Your task to perform on an android device: Clear all items from cart on ebay. Add "usb-c" to the cart on ebay, then select checkout. Image 0: 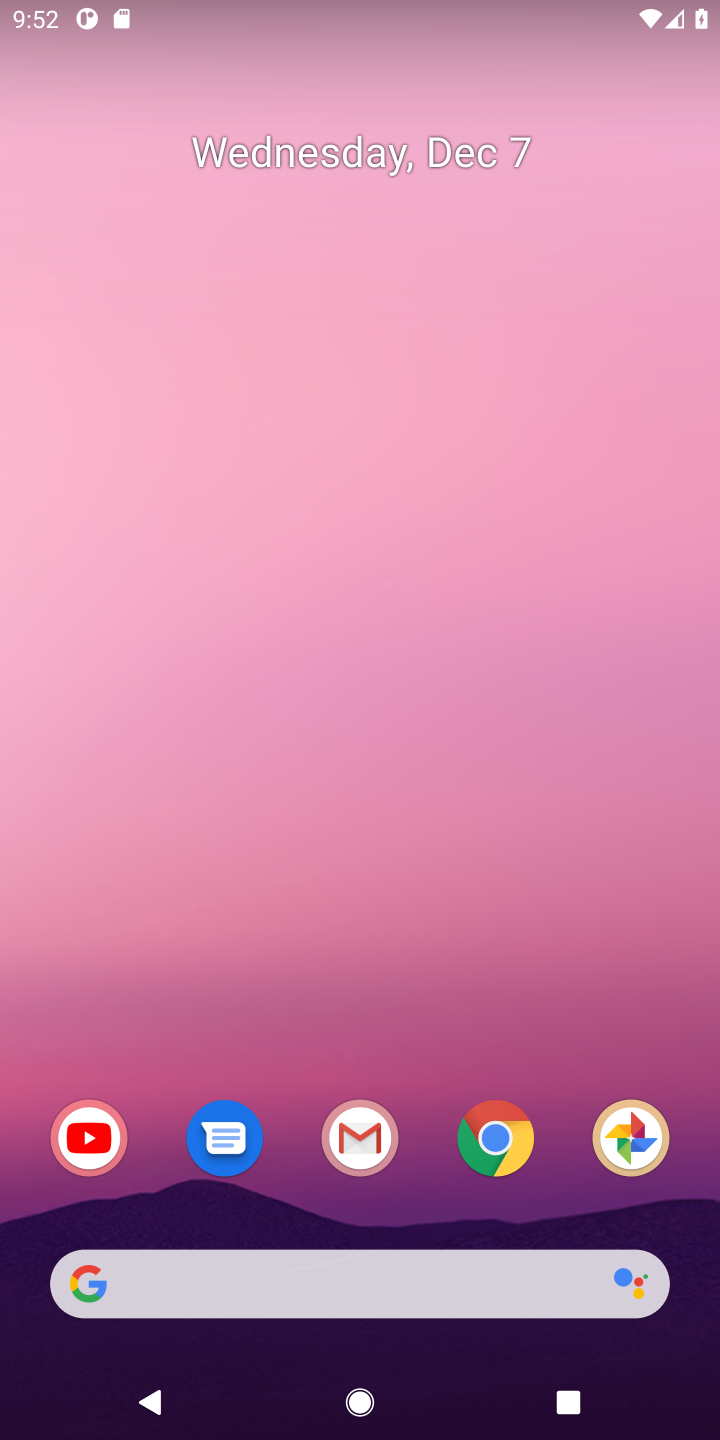
Step 0: press home button
Your task to perform on an android device: Clear all items from cart on ebay. Add "usb-c" to the cart on ebay, then select checkout. Image 1: 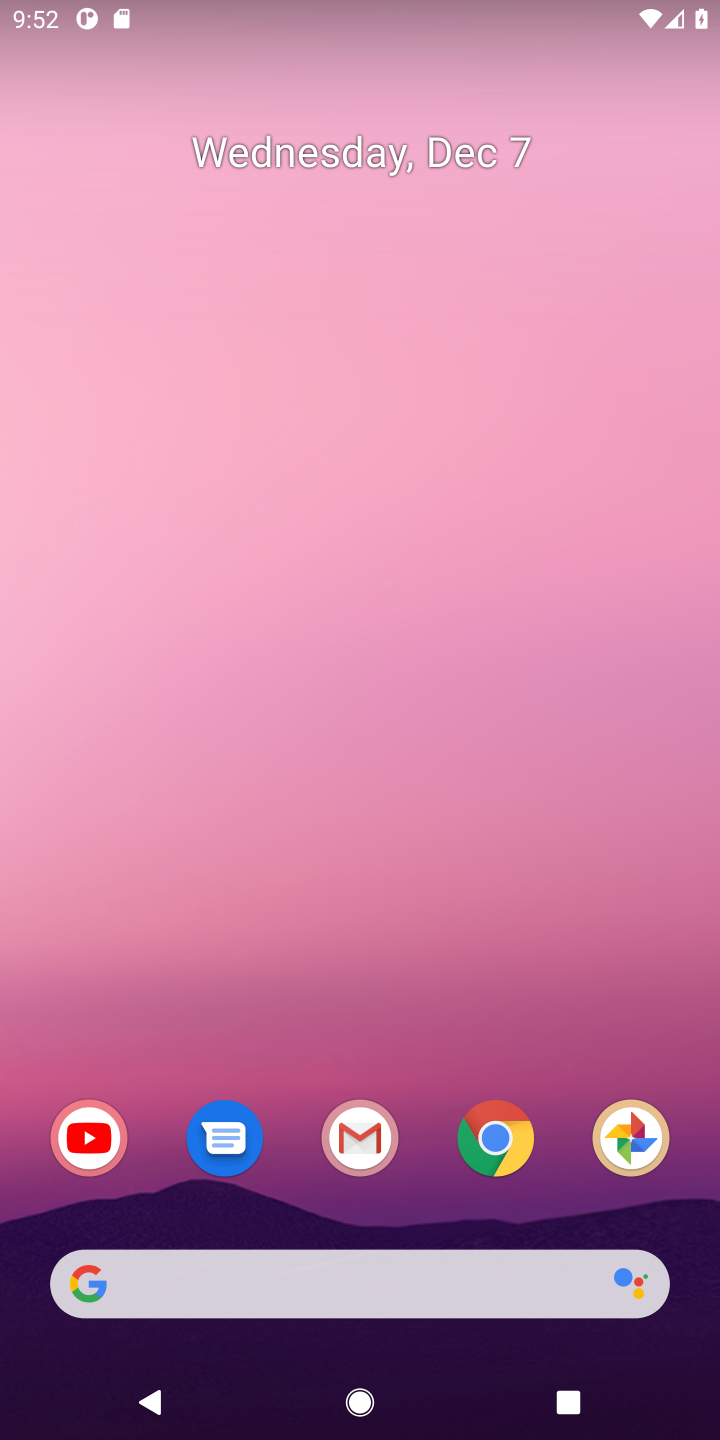
Step 1: click (155, 1286)
Your task to perform on an android device: Clear all items from cart on ebay. Add "usb-c" to the cart on ebay, then select checkout. Image 2: 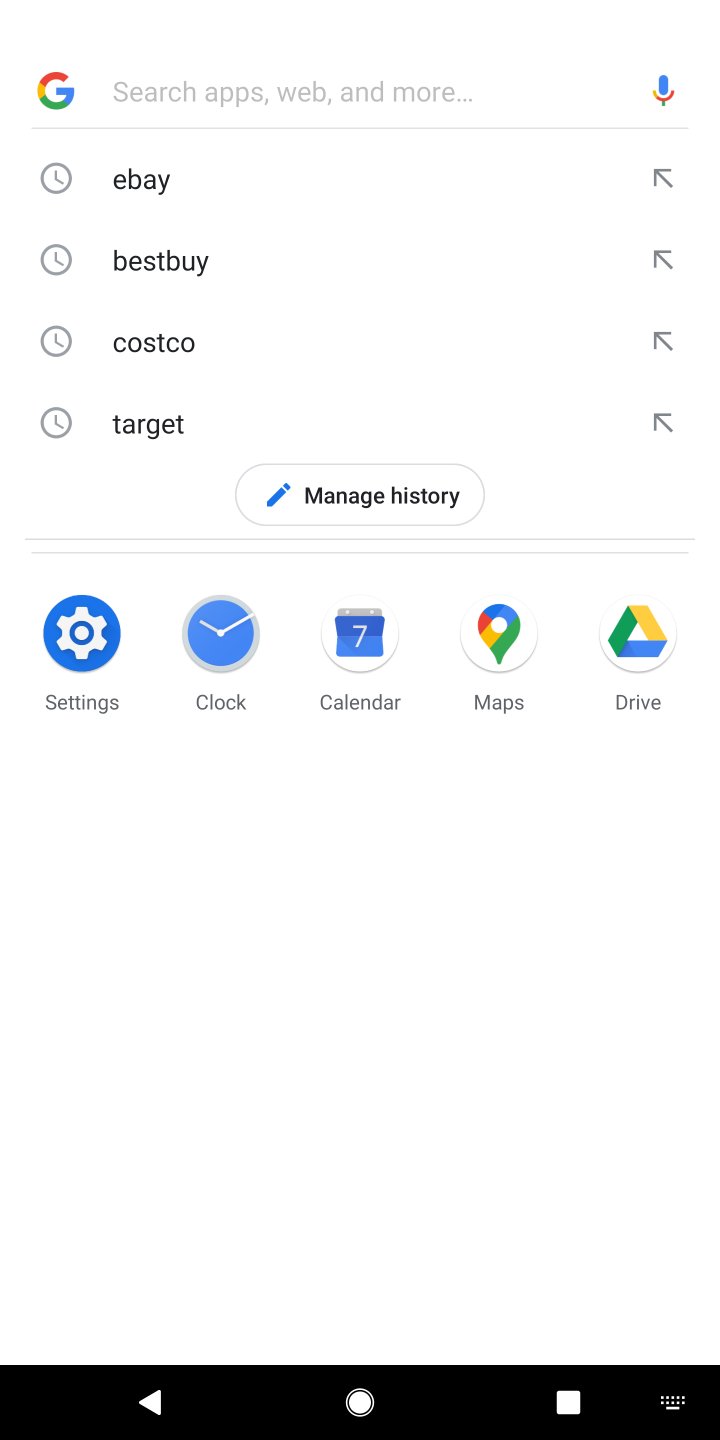
Step 2: press enter
Your task to perform on an android device: Clear all items from cart on ebay. Add "usb-c" to the cart on ebay, then select checkout. Image 3: 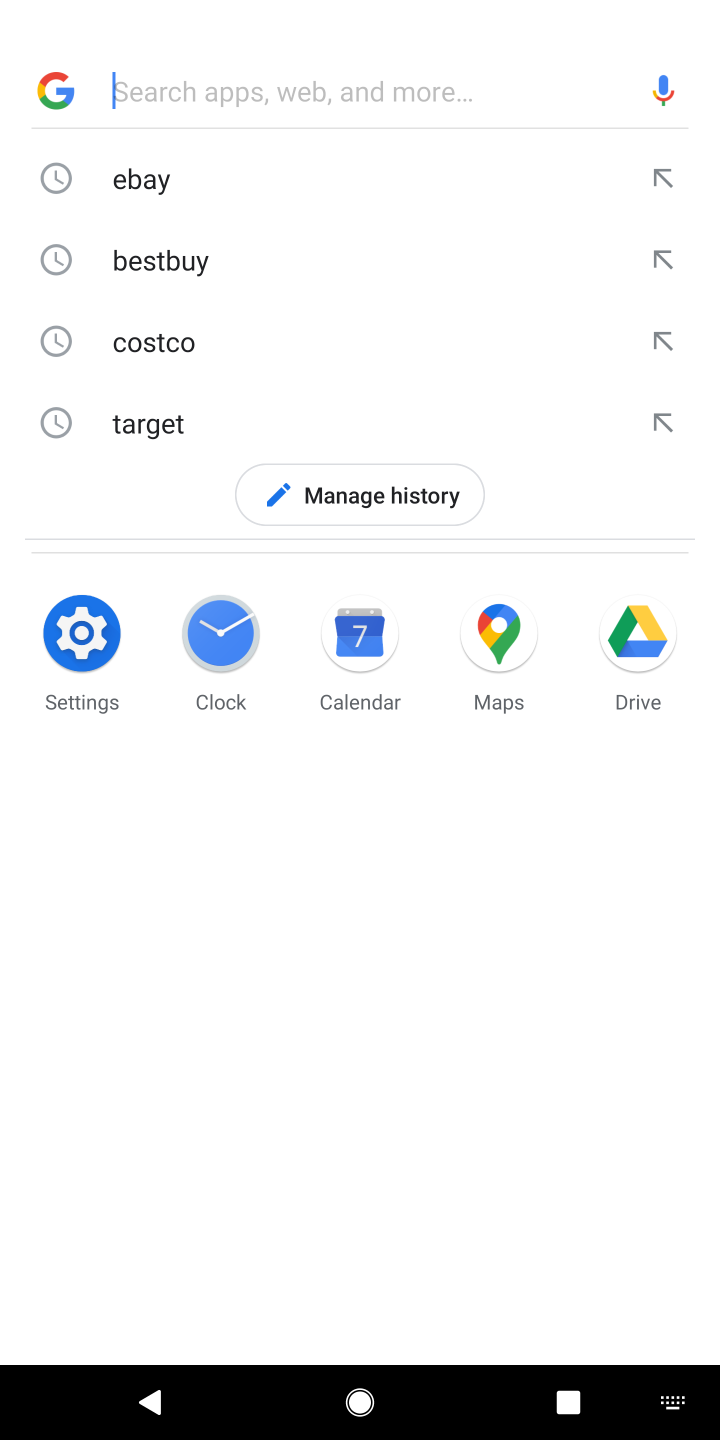
Step 3: type "ebay"
Your task to perform on an android device: Clear all items from cart on ebay. Add "usb-c" to the cart on ebay, then select checkout. Image 4: 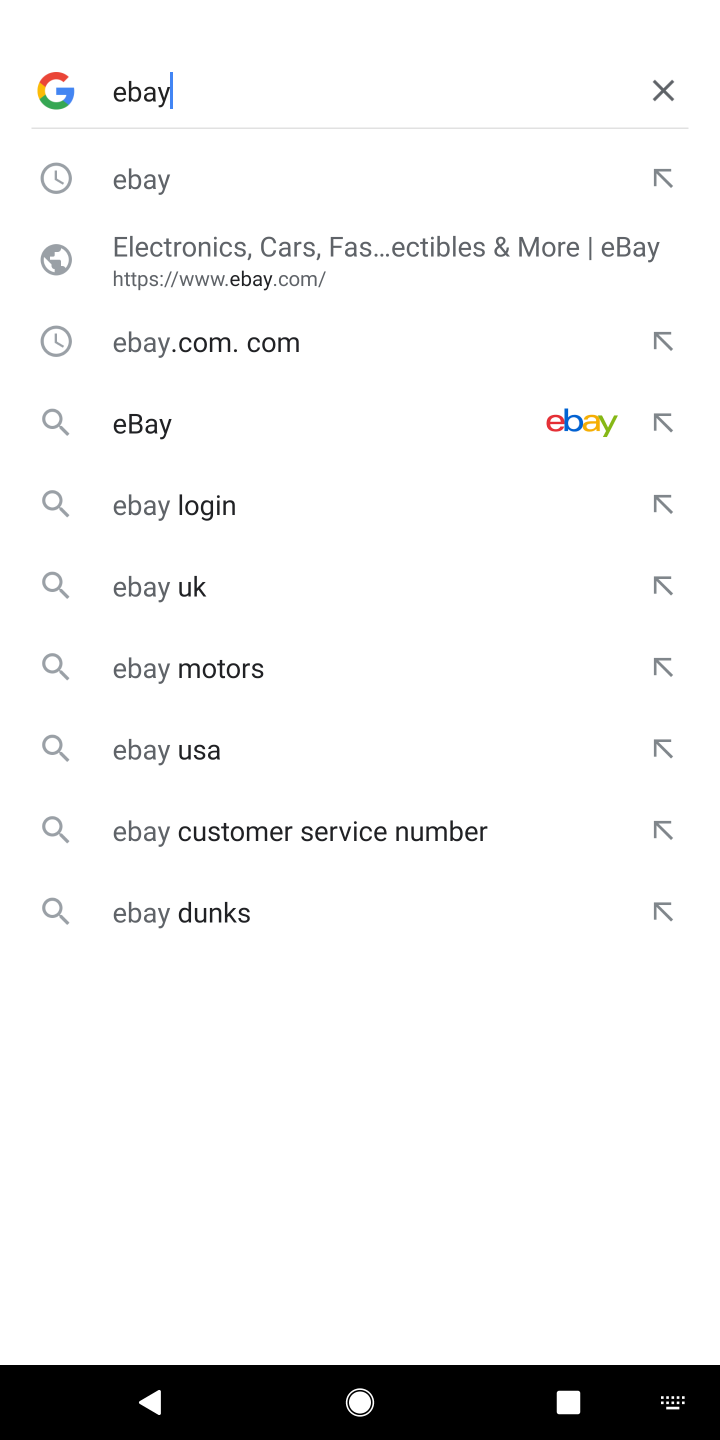
Step 4: press enter
Your task to perform on an android device: Clear all items from cart on ebay. Add "usb-c" to the cart on ebay, then select checkout. Image 5: 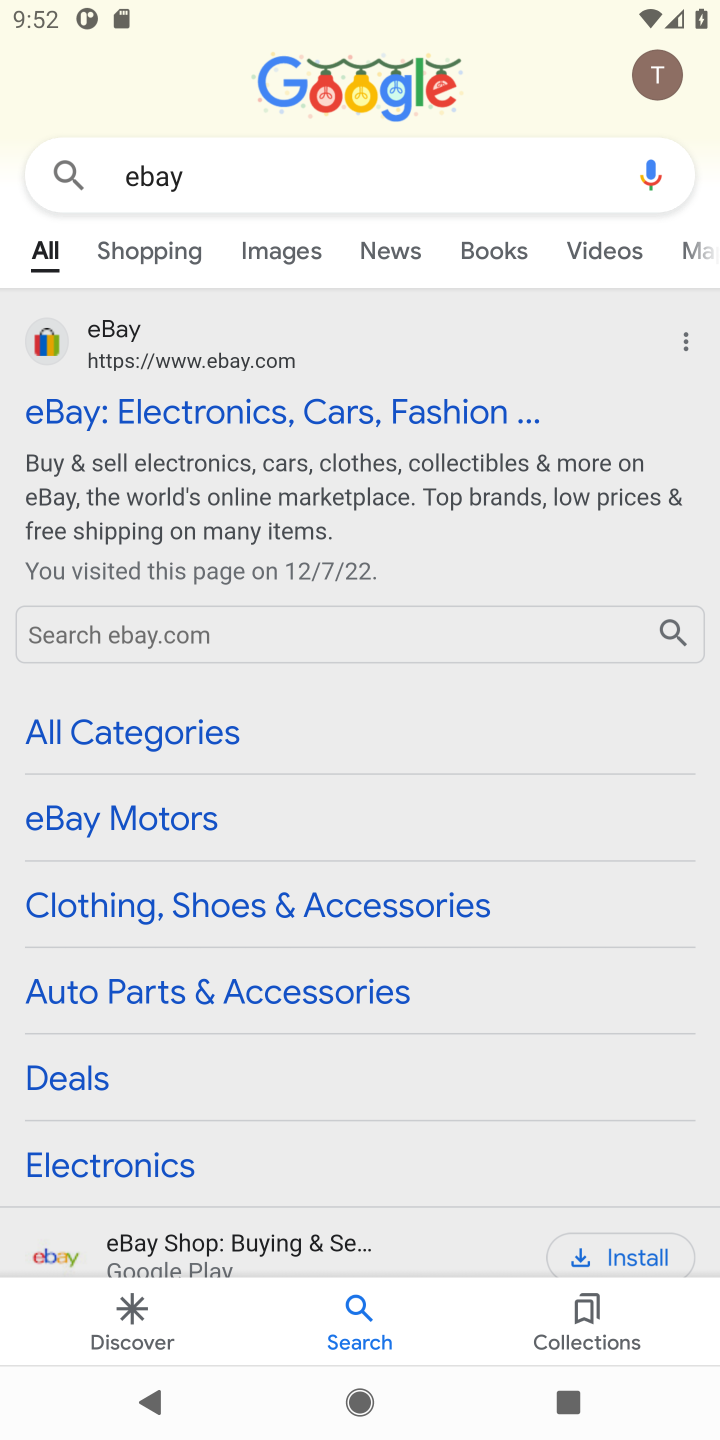
Step 5: click (296, 406)
Your task to perform on an android device: Clear all items from cart on ebay. Add "usb-c" to the cart on ebay, then select checkout. Image 6: 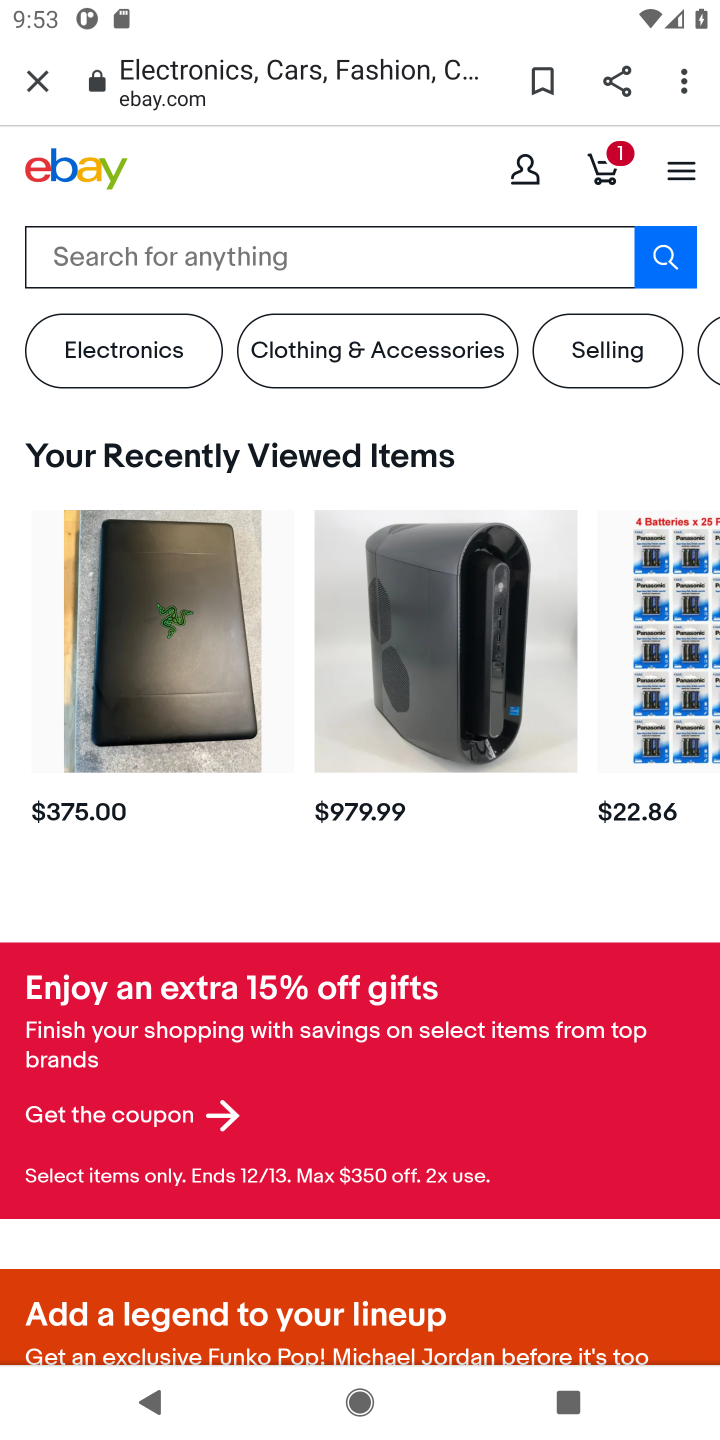
Step 6: click (603, 164)
Your task to perform on an android device: Clear all items from cart on ebay. Add "usb-c" to the cart on ebay, then select checkout. Image 7: 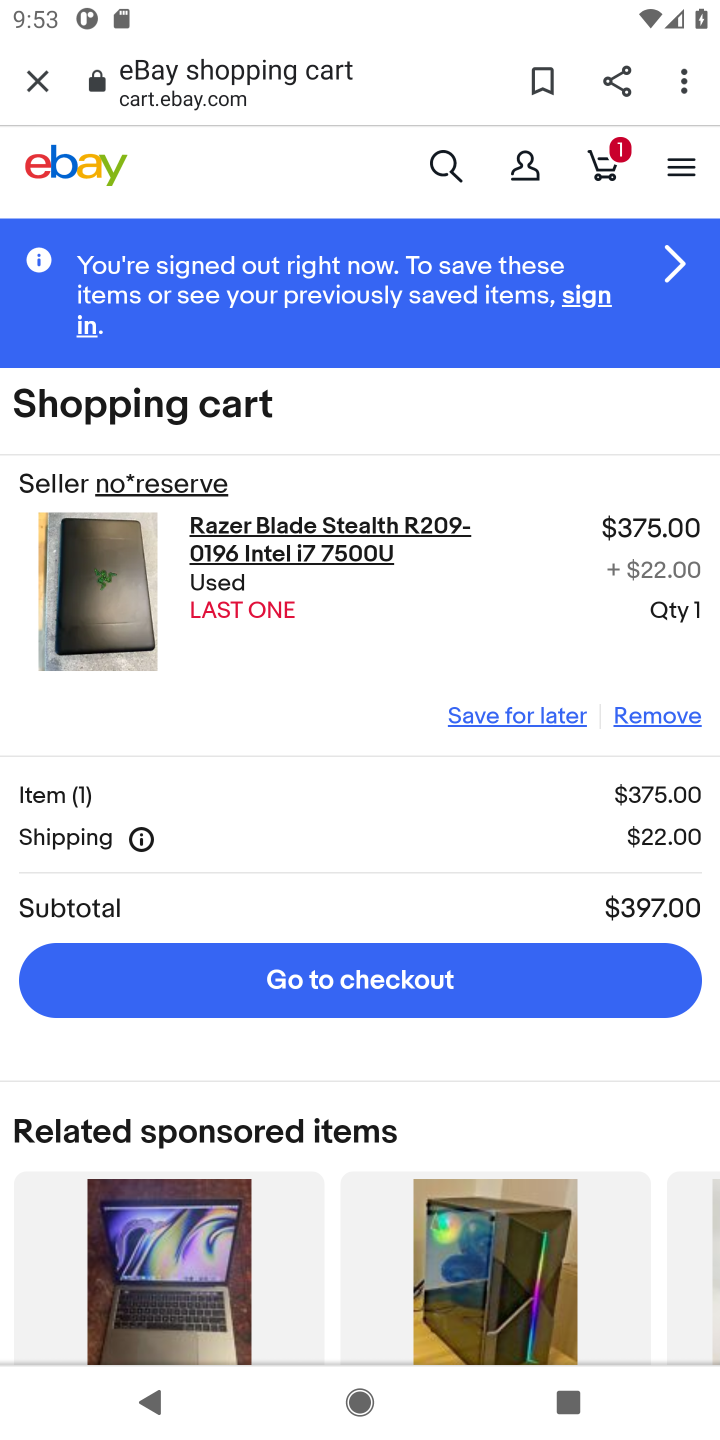
Step 7: click (648, 712)
Your task to perform on an android device: Clear all items from cart on ebay. Add "usb-c" to the cart on ebay, then select checkout. Image 8: 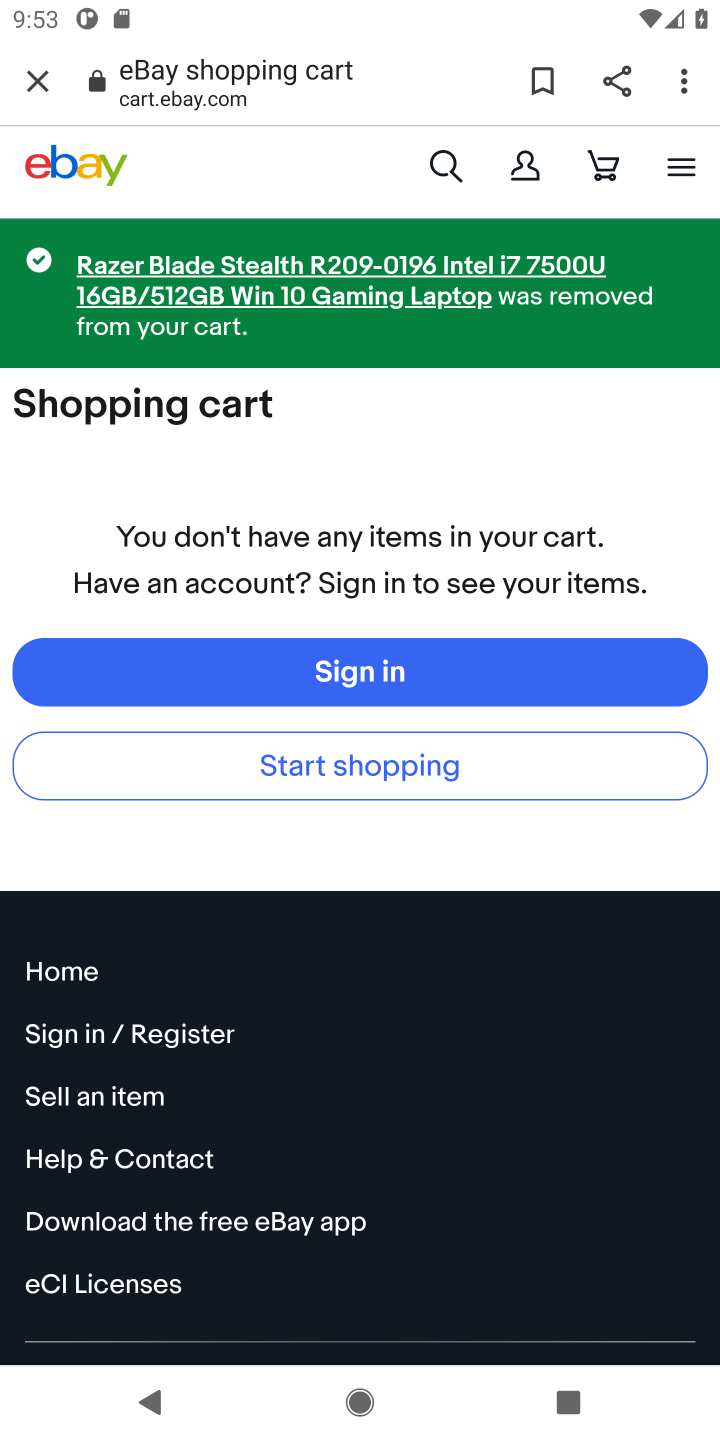
Step 8: click (438, 155)
Your task to perform on an android device: Clear all items from cart on ebay. Add "usb-c" to the cart on ebay, then select checkout. Image 9: 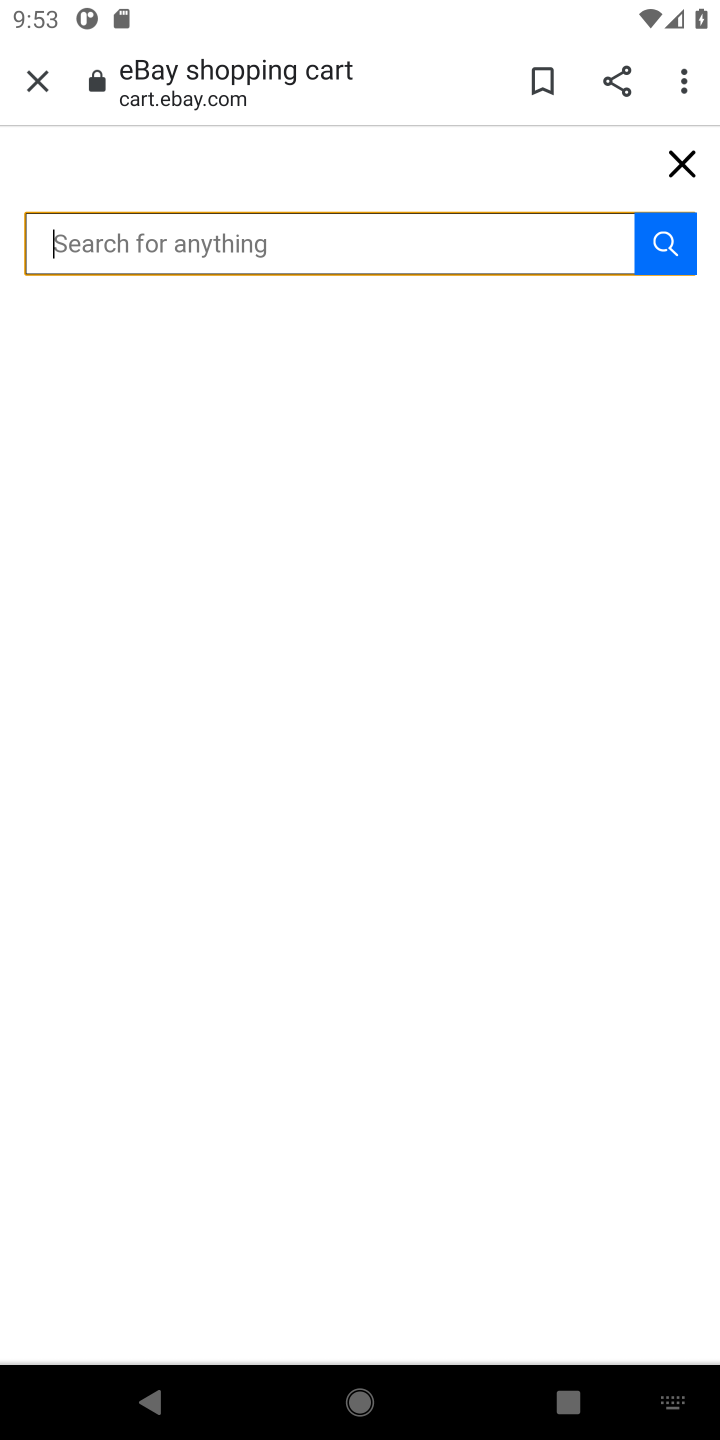
Step 9: type "usb-c"
Your task to perform on an android device: Clear all items from cart on ebay. Add "usb-c" to the cart on ebay, then select checkout. Image 10: 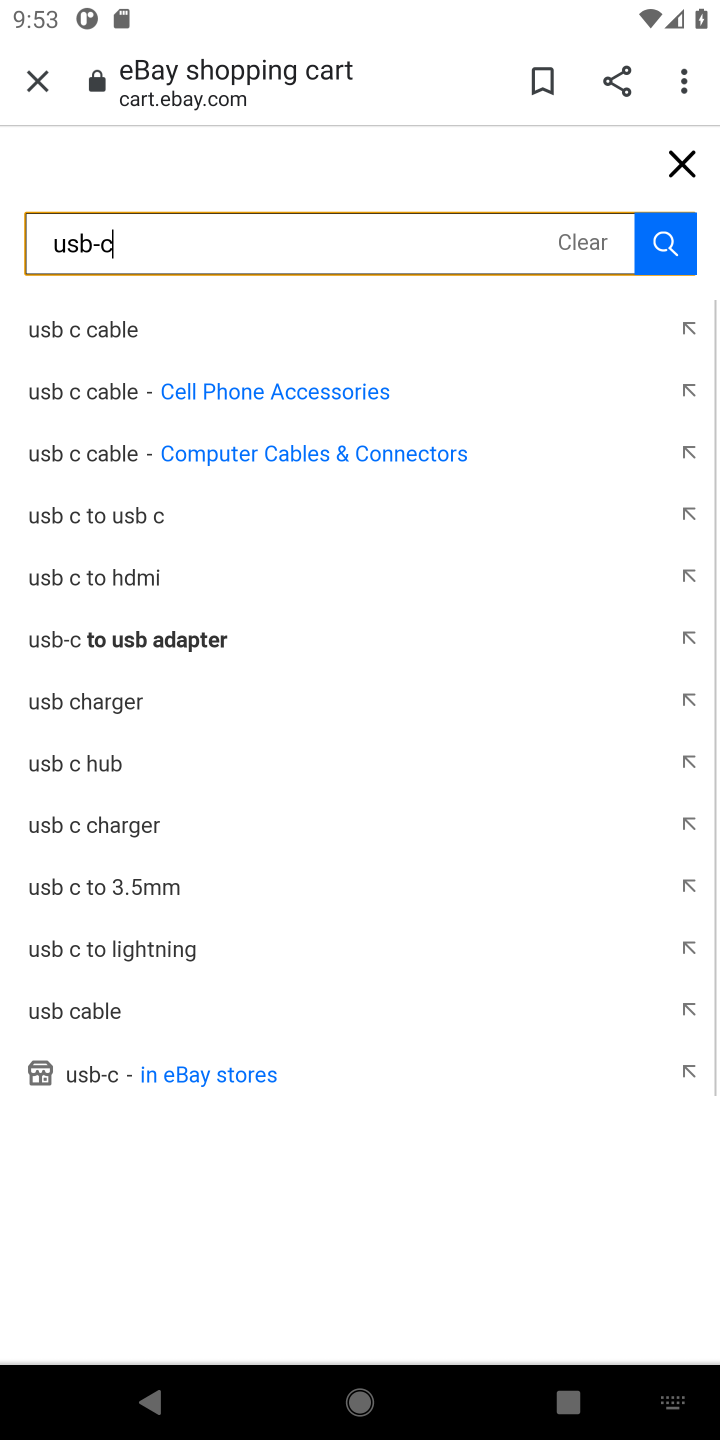
Step 10: press enter
Your task to perform on an android device: Clear all items from cart on ebay. Add "usb-c" to the cart on ebay, then select checkout. Image 11: 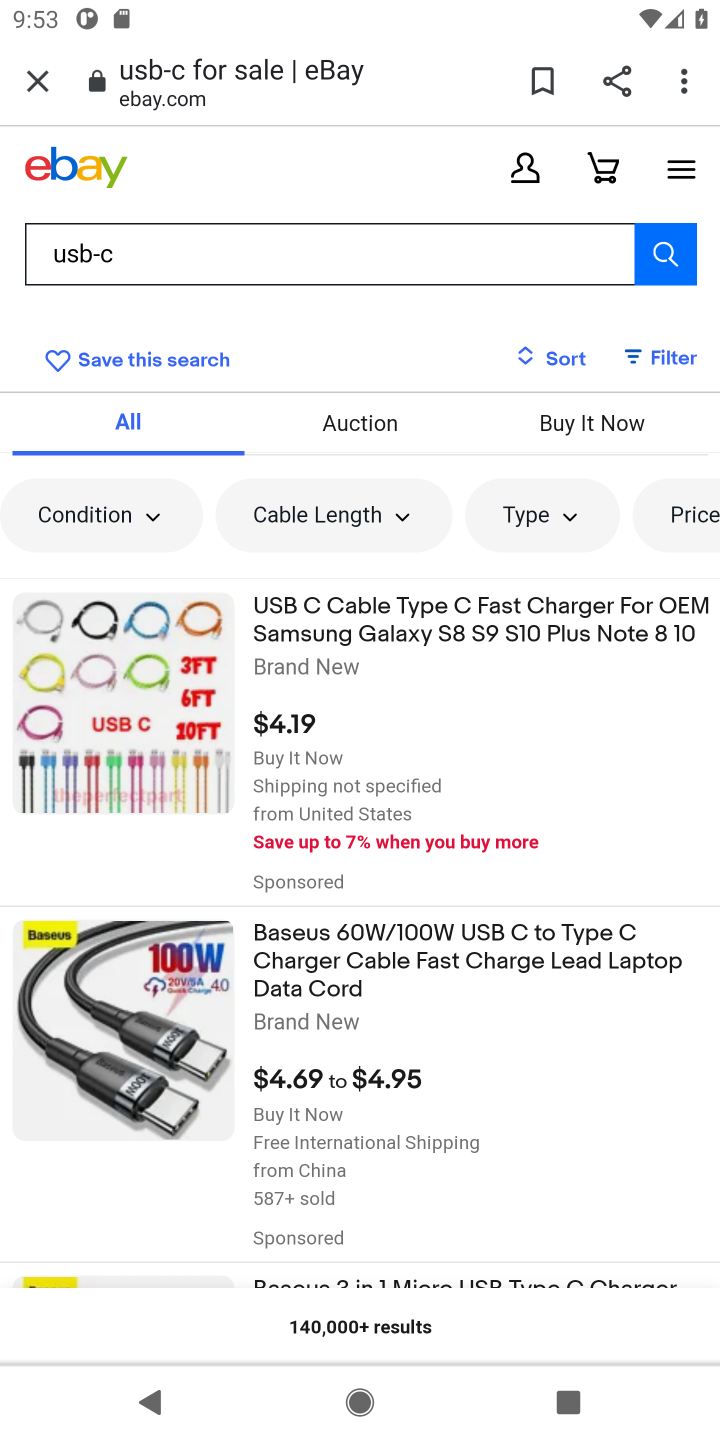
Step 11: click (319, 617)
Your task to perform on an android device: Clear all items from cart on ebay. Add "usb-c" to the cart on ebay, then select checkout. Image 12: 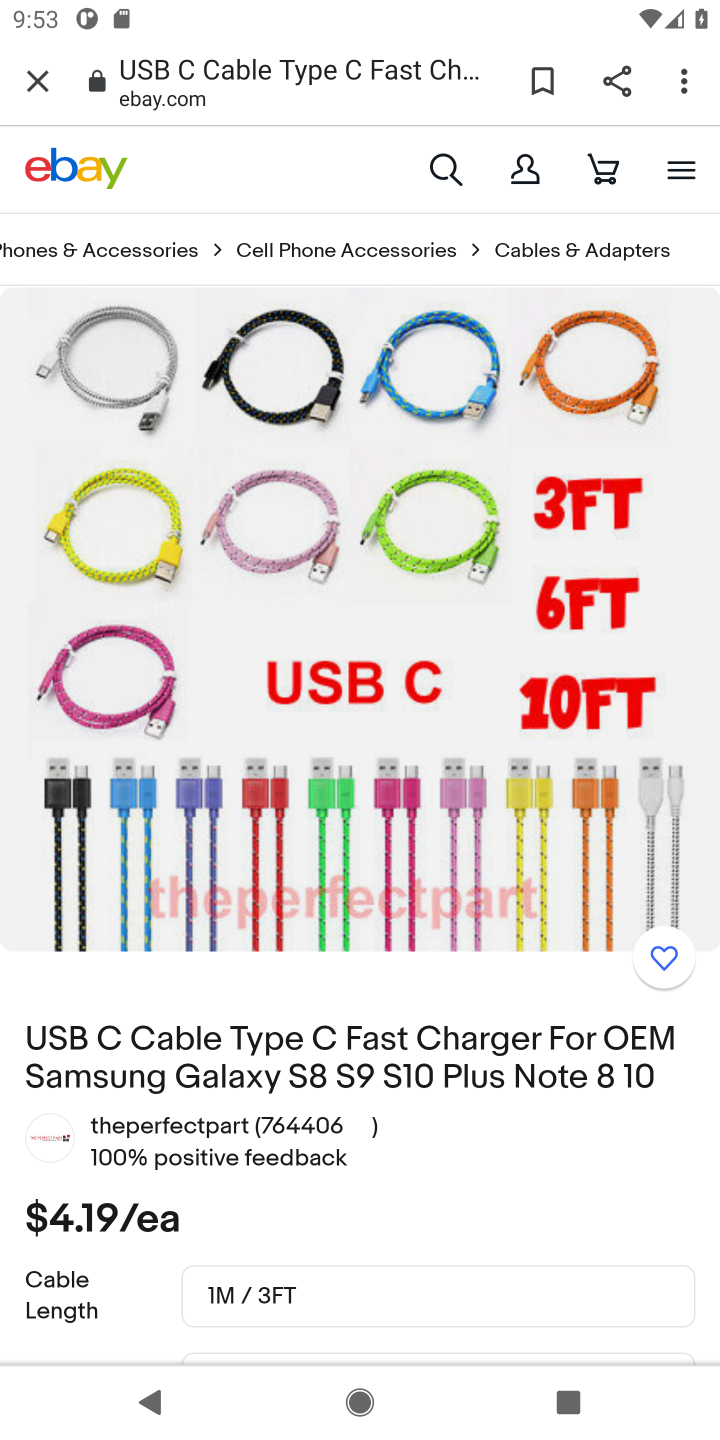
Step 12: drag from (384, 922) to (384, 333)
Your task to perform on an android device: Clear all items from cart on ebay. Add "usb-c" to the cart on ebay, then select checkout. Image 13: 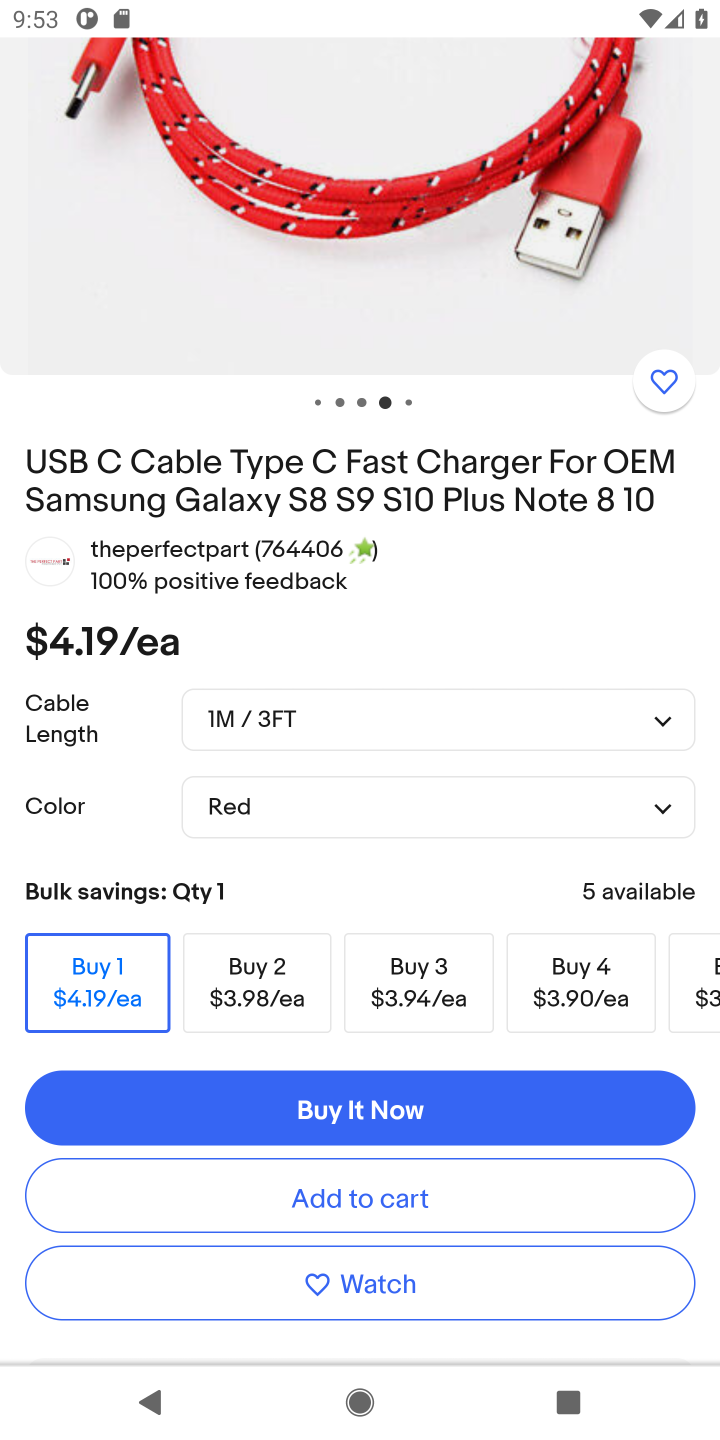
Step 13: click (356, 1200)
Your task to perform on an android device: Clear all items from cart on ebay. Add "usb-c" to the cart on ebay, then select checkout. Image 14: 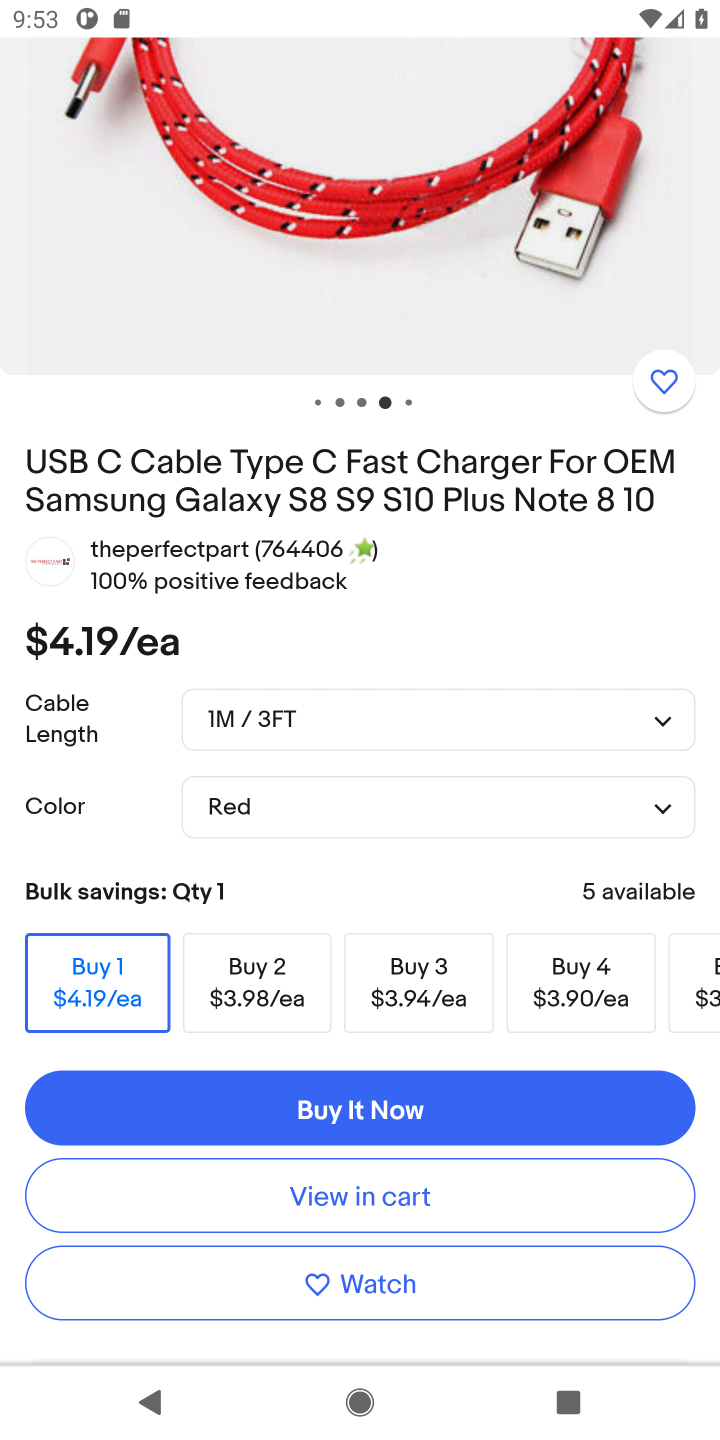
Step 14: task complete